Your task to perform on an android device: What's on my calendar tomorrow? Image 0: 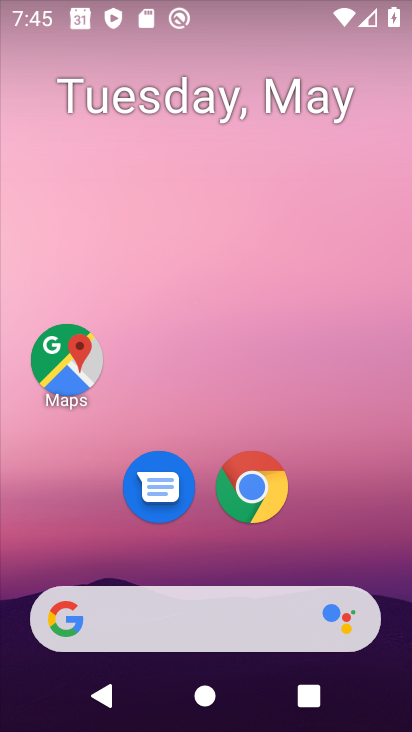
Step 0: drag from (375, 558) to (376, 255)
Your task to perform on an android device: What's on my calendar tomorrow? Image 1: 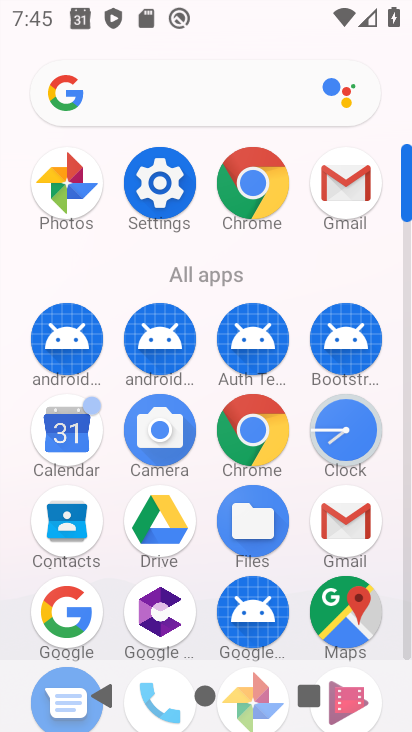
Step 1: click (58, 444)
Your task to perform on an android device: What's on my calendar tomorrow? Image 2: 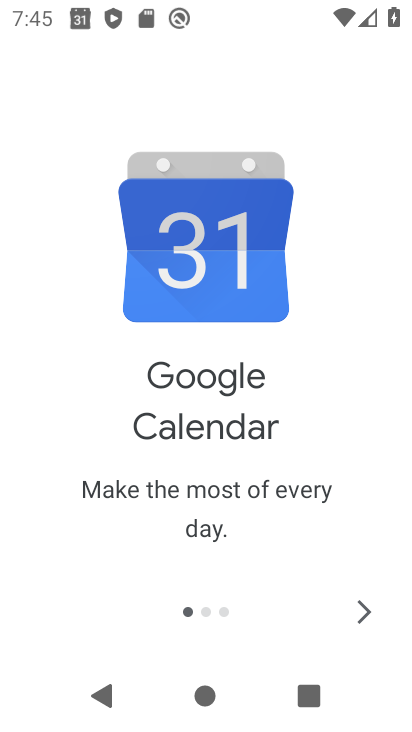
Step 2: click (360, 608)
Your task to perform on an android device: What's on my calendar tomorrow? Image 3: 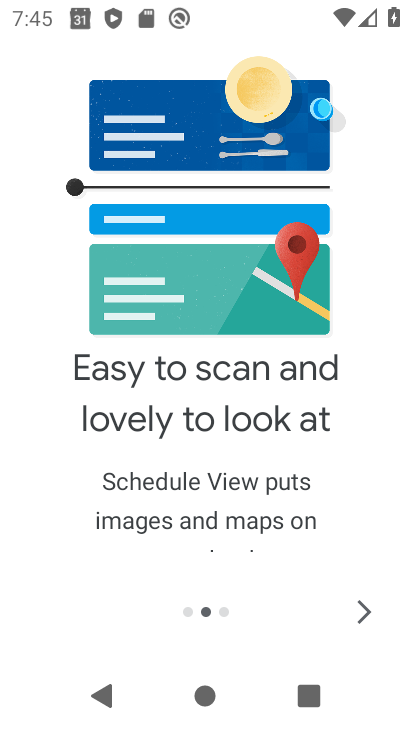
Step 3: click (360, 608)
Your task to perform on an android device: What's on my calendar tomorrow? Image 4: 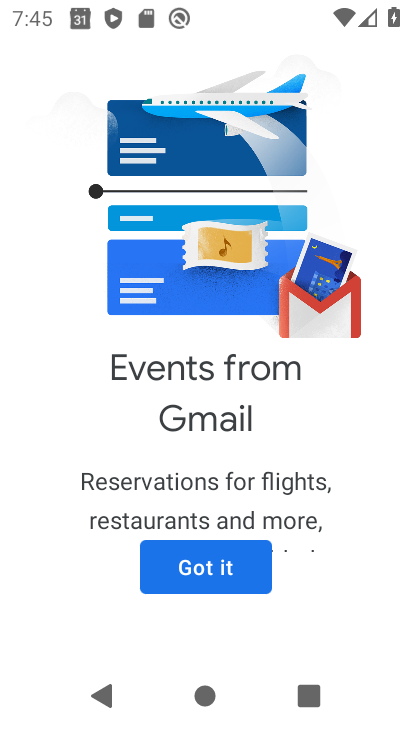
Step 4: click (247, 581)
Your task to perform on an android device: What's on my calendar tomorrow? Image 5: 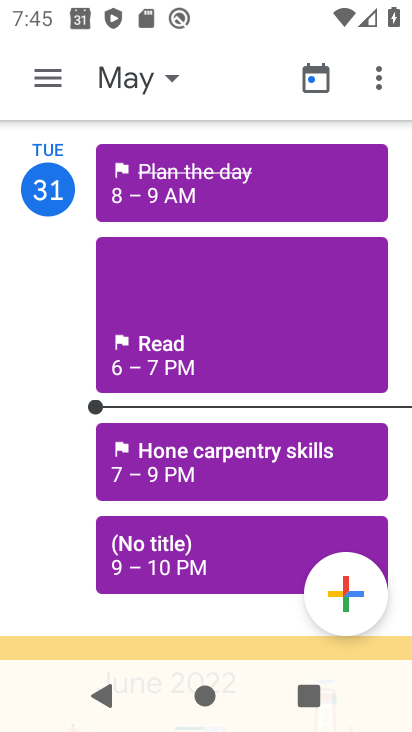
Step 5: click (182, 76)
Your task to perform on an android device: What's on my calendar tomorrow? Image 6: 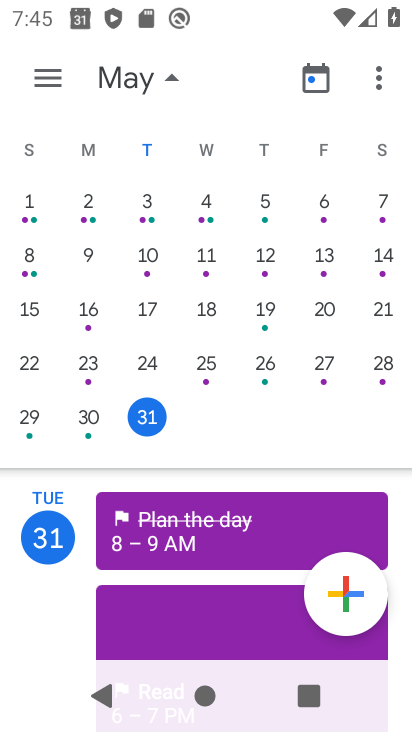
Step 6: drag from (319, 173) to (74, 173)
Your task to perform on an android device: What's on my calendar tomorrow? Image 7: 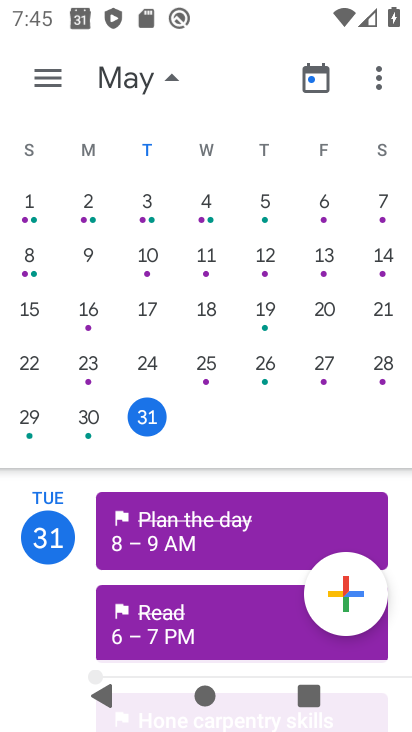
Step 7: drag from (393, 172) to (12, 167)
Your task to perform on an android device: What's on my calendar tomorrow? Image 8: 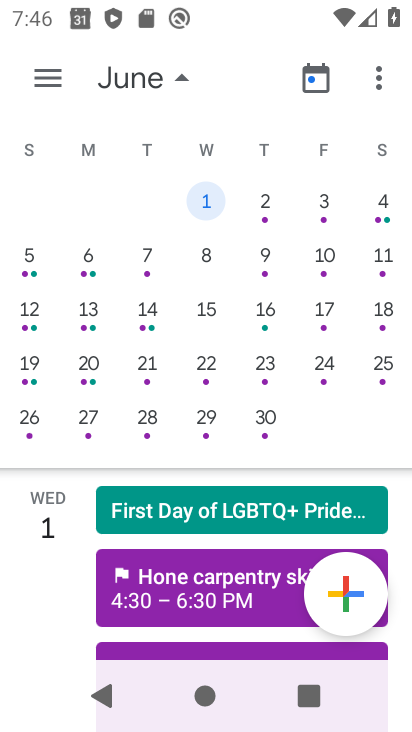
Step 8: click (268, 207)
Your task to perform on an android device: What's on my calendar tomorrow? Image 9: 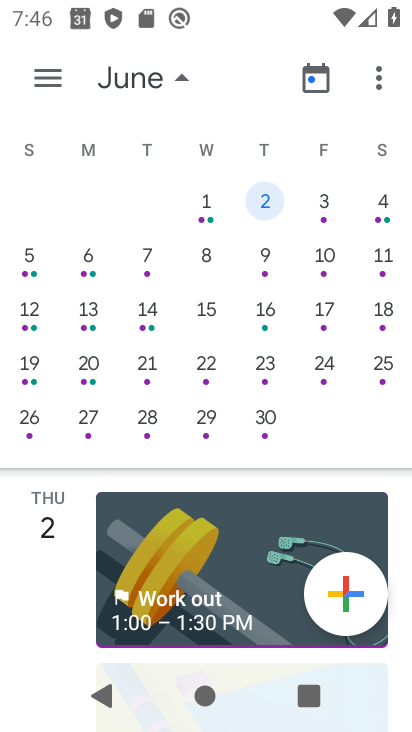
Step 9: task complete